Your task to perform on an android device: turn off airplane mode Image 0: 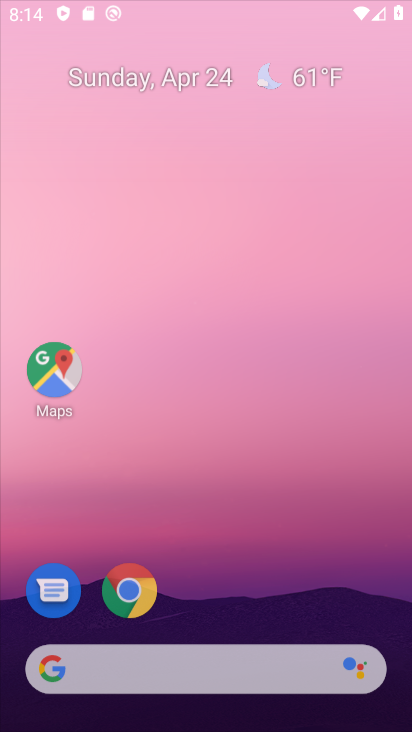
Step 0: drag from (201, 623) to (157, 165)
Your task to perform on an android device: turn off airplane mode Image 1: 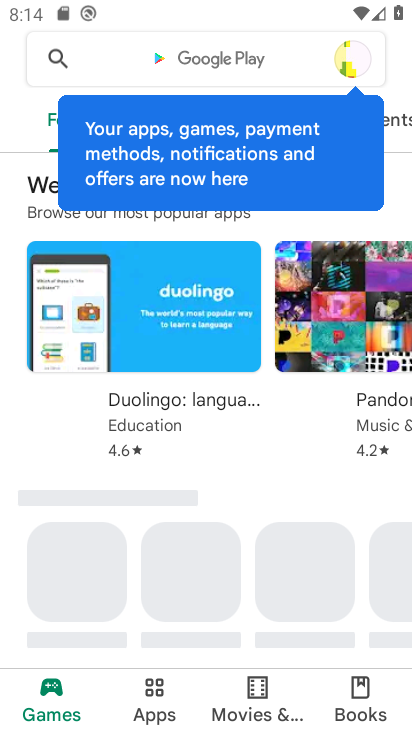
Step 1: press home button
Your task to perform on an android device: turn off airplane mode Image 2: 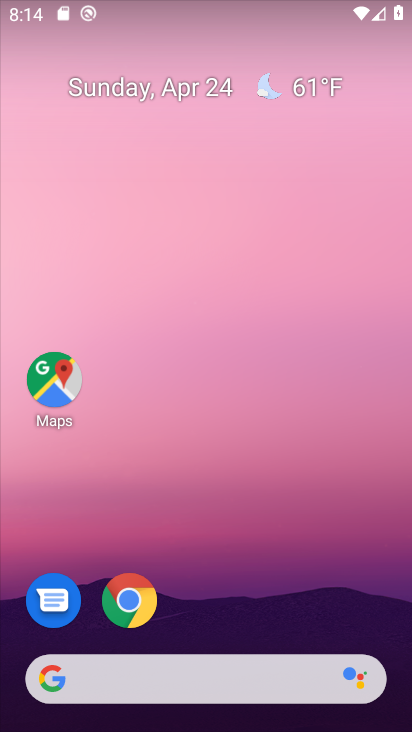
Step 2: drag from (202, 641) to (202, 170)
Your task to perform on an android device: turn off airplane mode Image 3: 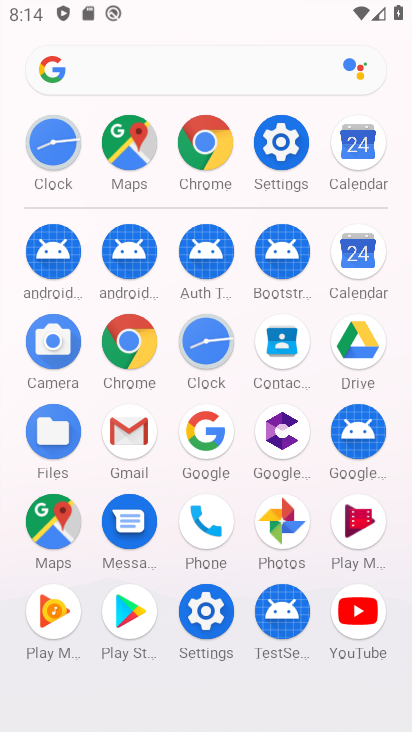
Step 3: click (283, 149)
Your task to perform on an android device: turn off airplane mode Image 4: 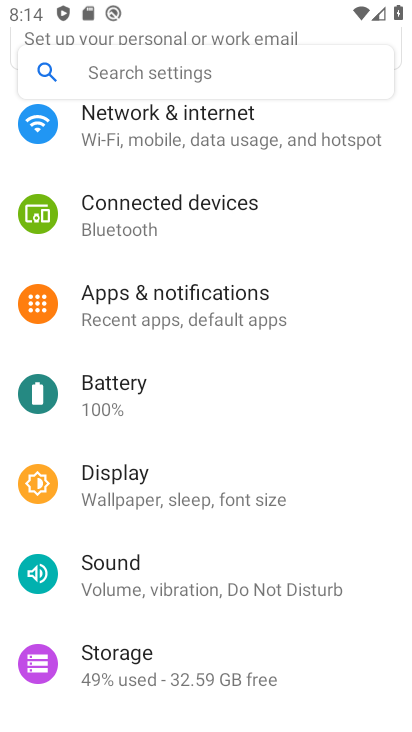
Step 4: drag from (213, 644) to (213, 310)
Your task to perform on an android device: turn off airplane mode Image 5: 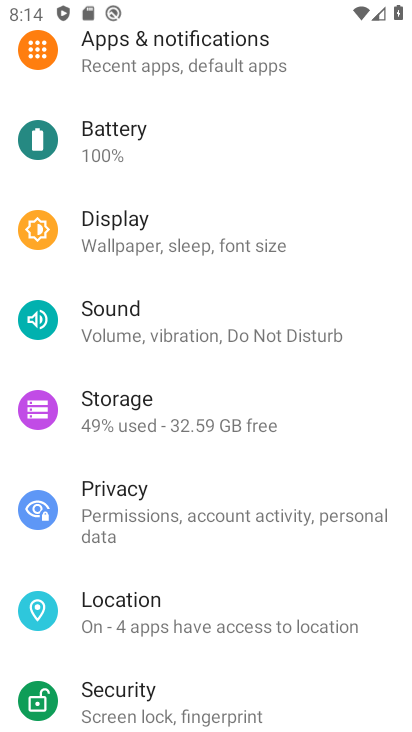
Step 5: drag from (225, 658) to (214, 384)
Your task to perform on an android device: turn off airplane mode Image 6: 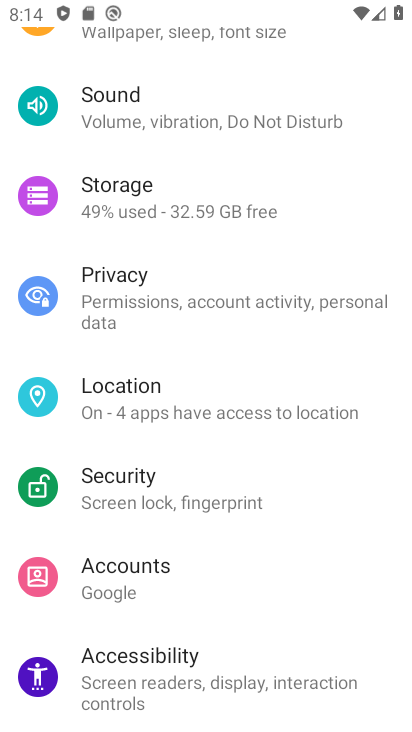
Step 6: drag from (238, 678) to (241, 349)
Your task to perform on an android device: turn off airplane mode Image 7: 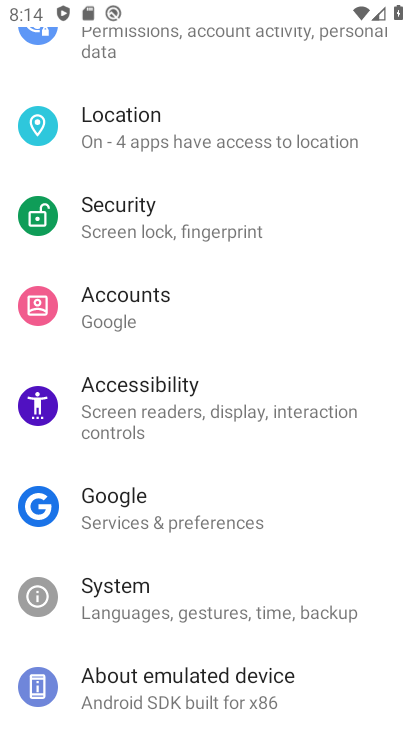
Step 7: drag from (164, 656) to (159, 259)
Your task to perform on an android device: turn off airplane mode Image 8: 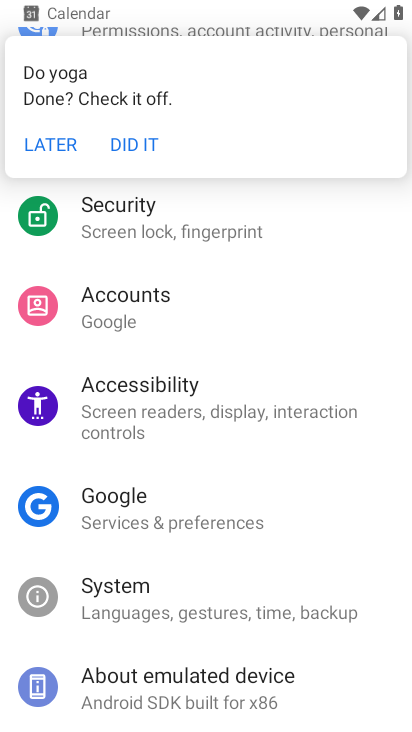
Step 8: drag from (206, 654) to (217, 290)
Your task to perform on an android device: turn off airplane mode Image 9: 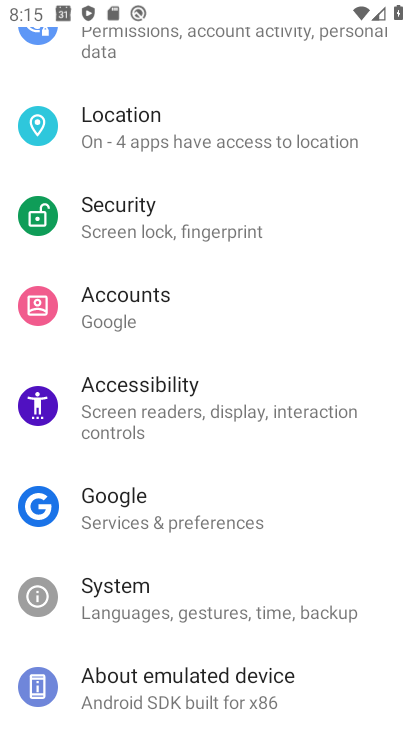
Step 9: drag from (266, 108) to (221, 588)
Your task to perform on an android device: turn off airplane mode Image 10: 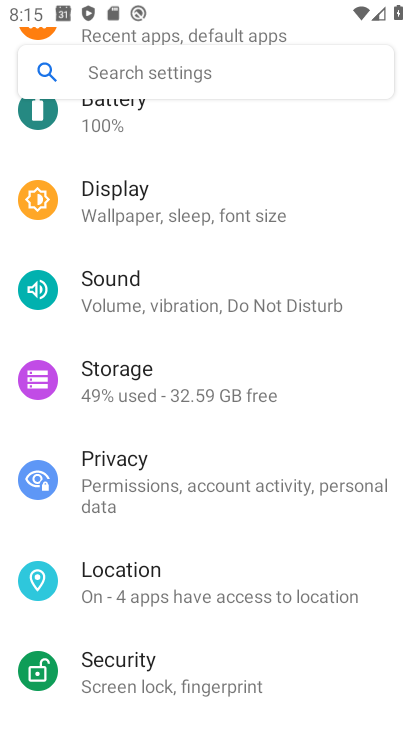
Step 10: drag from (235, 151) to (200, 422)
Your task to perform on an android device: turn off airplane mode Image 11: 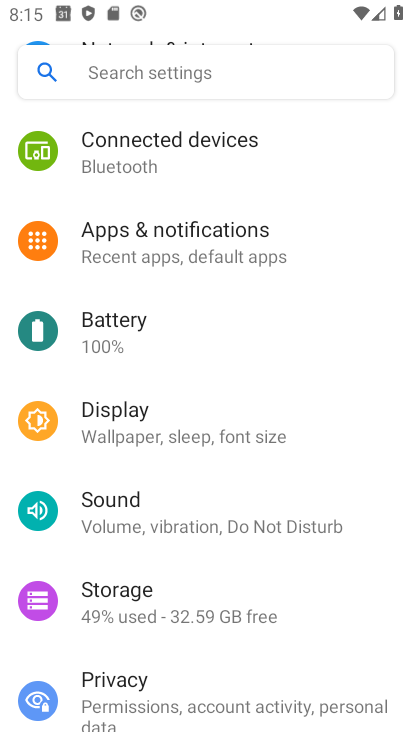
Step 11: drag from (218, 118) to (198, 567)
Your task to perform on an android device: turn off airplane mode Image 12: 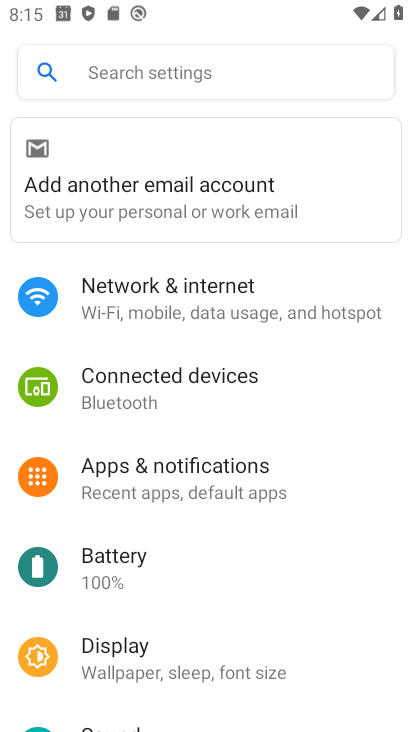
Step 12: click (160, 302)
Your task to perform on an android device: turn off airplane mode Image 13: 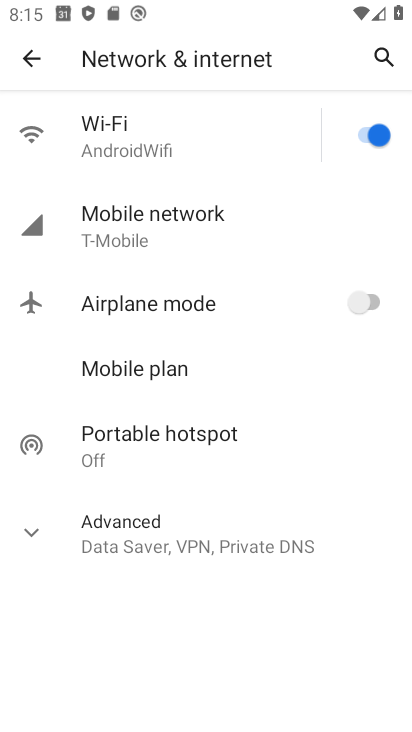
Step 13: task complete